Your task to perform on an android device: turn off data saver in the chrome app Image 0: 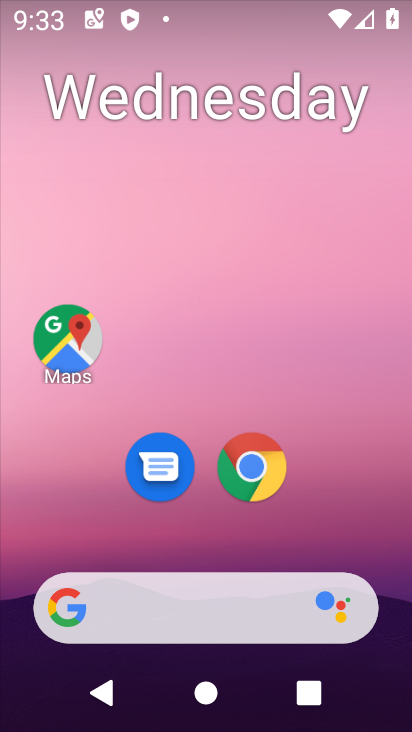
Step 0: click (252, 472)
Your task to perform on an android device: turn off data saver in the chrome app Image 1: 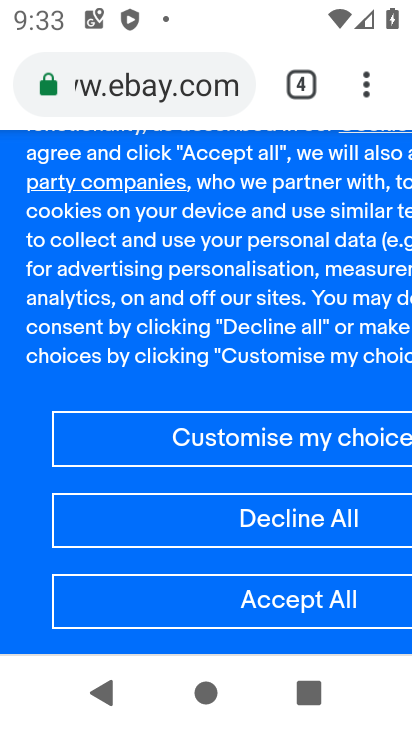
Step 1: click (371, 82)
Your task to perform on an android device: turn off data saver in the chrome app Image 2: 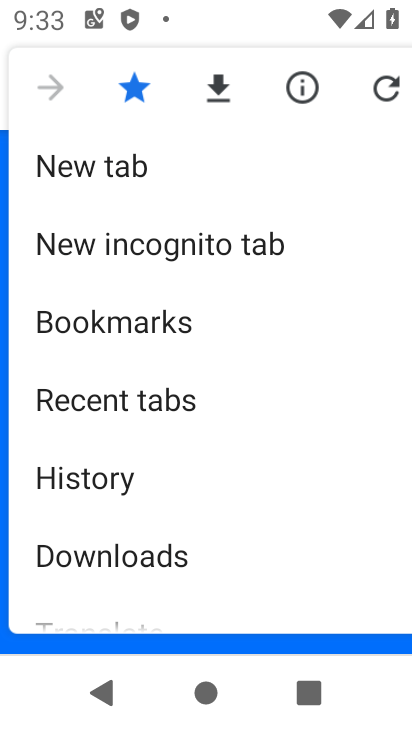
Step 2: drag from (266, 534) to (263, 102)
Your task to perform on an android device: turn off data saver in the chrome app Image 3: 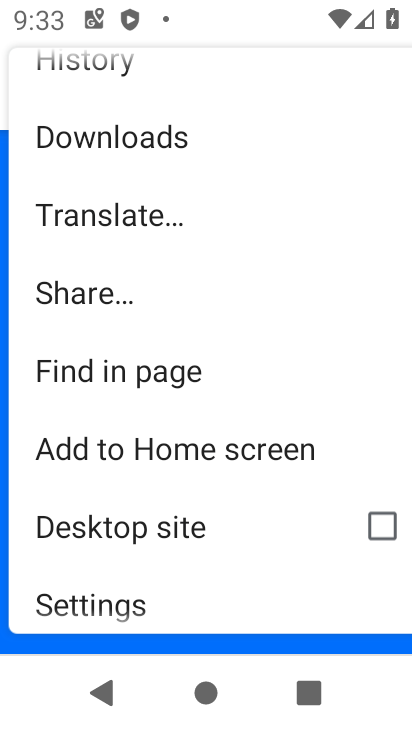
Step 3: click (182, 593)
Your task to perform on an android device: turn off data saver in the chrome app Image 4: 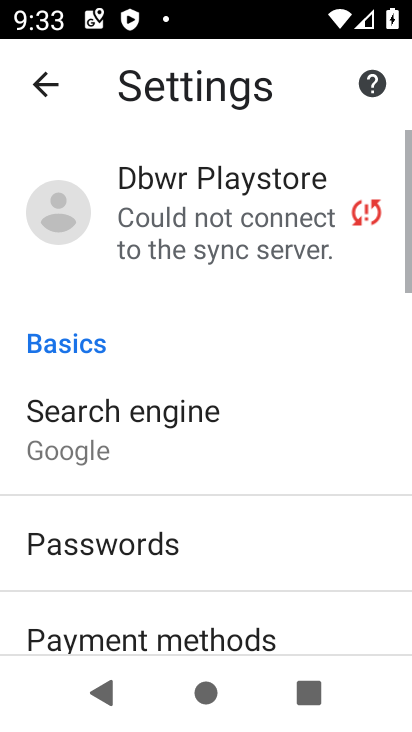
Step 4: drag from (207, 560) to (233, 110)
Your task to perform on an android device: turn off data saver in the chrome app Image 5: 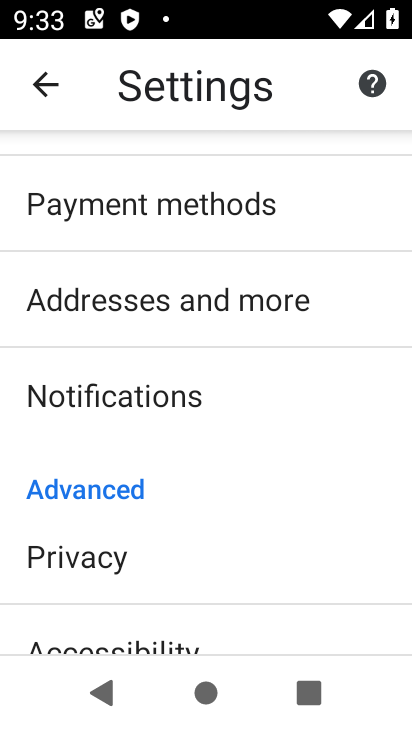
Step 5: drag from (237, 577) to (228, 269)
Your task to perform on an android device: turn off data saver in the chrome app Image 6: 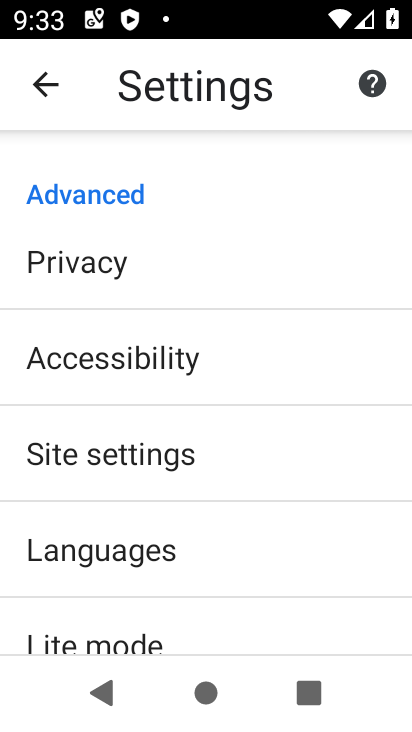
Step 6: click (173, 633)
Your task to perform on an android device: turn off data saver in the chrome app Image 7: 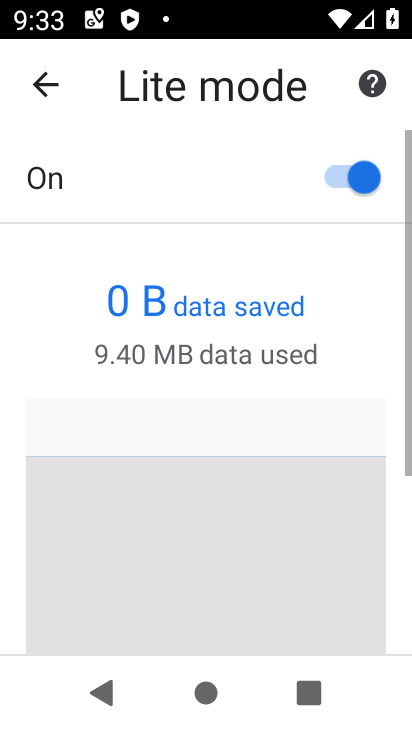
Step 7: click (346, 172)
Your task to perform on an android device: turn off data saver in the chrome app Image 8: 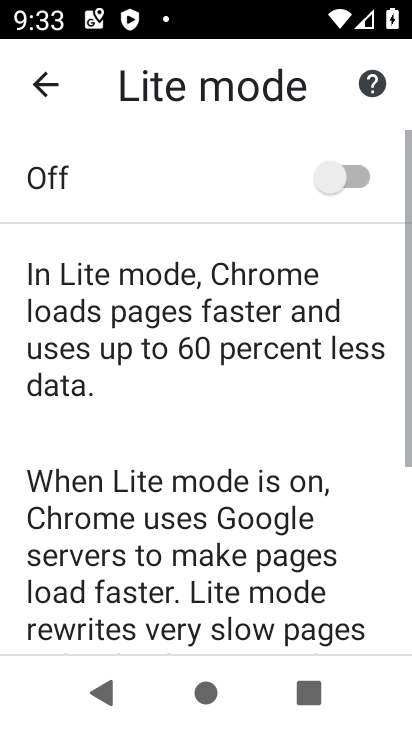
Step 8: task complete